Your task to perform on an android device: Show me popular videos on Youtube Image 0: 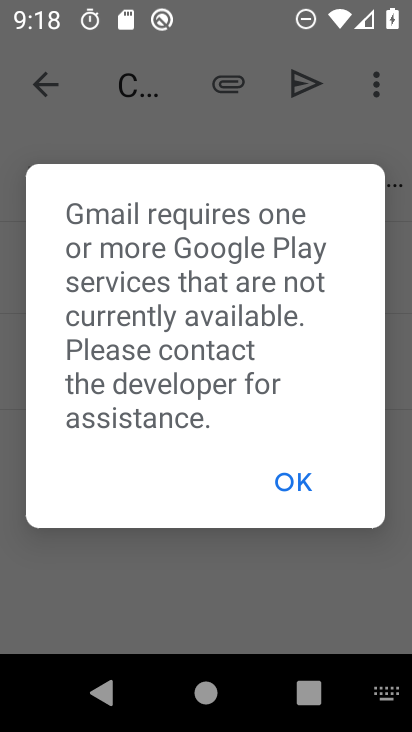
Step 0: press home button
Your task to perform on an android device: Show me popular videos on Youtube Image 1: 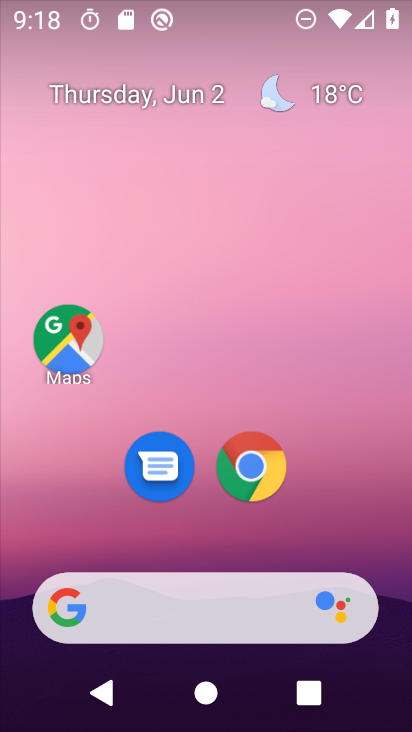
Step 1: drag from (295, 537) to (292, 116)
Your task to perform on an android device: Show me popular videos on Youtube Image 2: 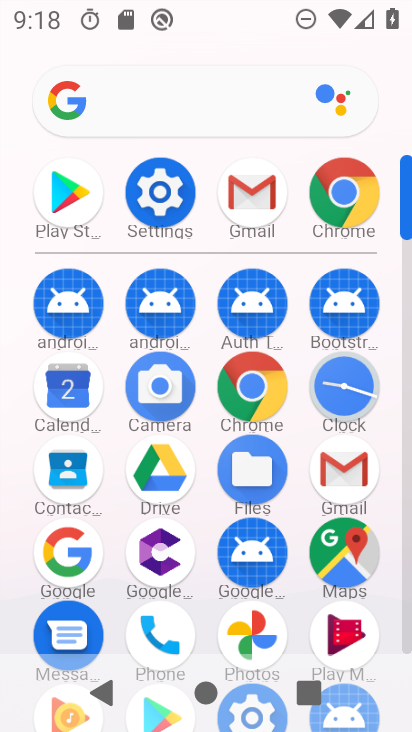
Step 2: drag from (389, 654) to (387, 93)
Your task to perform on an android device: Show me popular videos on Youtube Image 3: 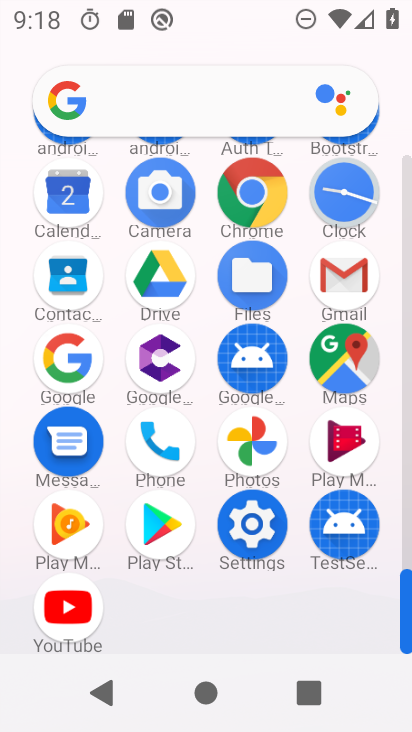
Step 3: click (79, 619)
Your task to perform on an android device: Show me popular videos on Youtube Image 4: 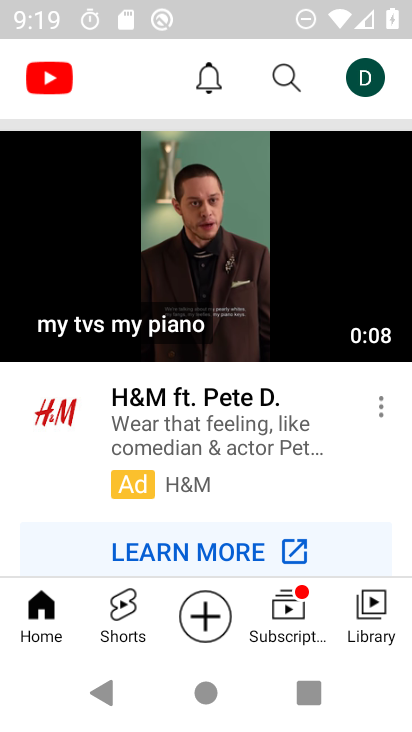
Step 4: click (49, 618)
Your task to perform on an android device: Show me popular videos on Youtube Image 5: 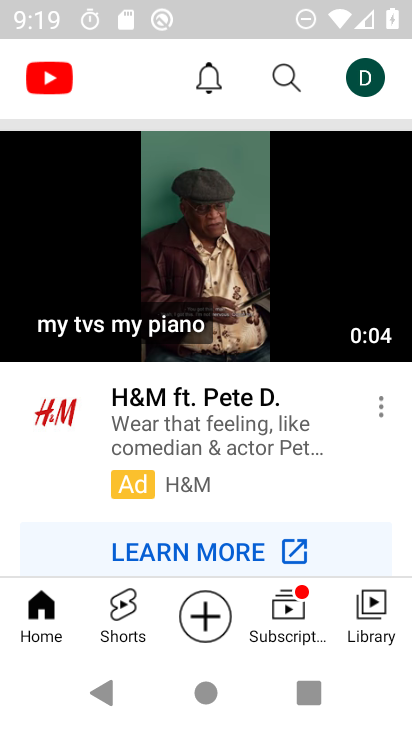
Step 5: drag from (343, 476) to (262, 688)
Your task to perform on an android device: Show me popular videos on Youtube Image 6: 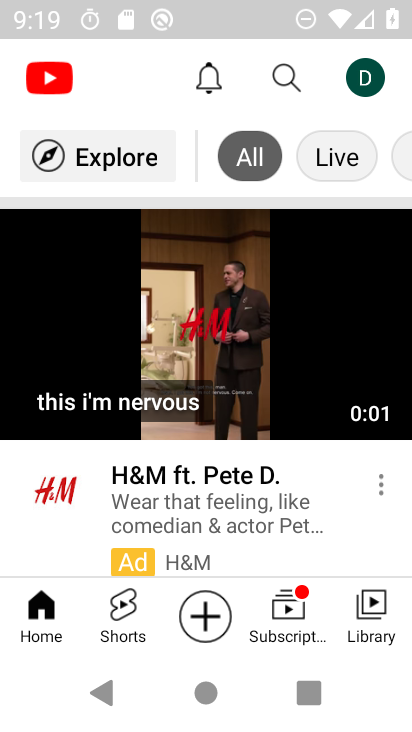
Step 6: click (98, 153)
Your task to perform on an android device: Show me popular videos on Youtube Image 7: 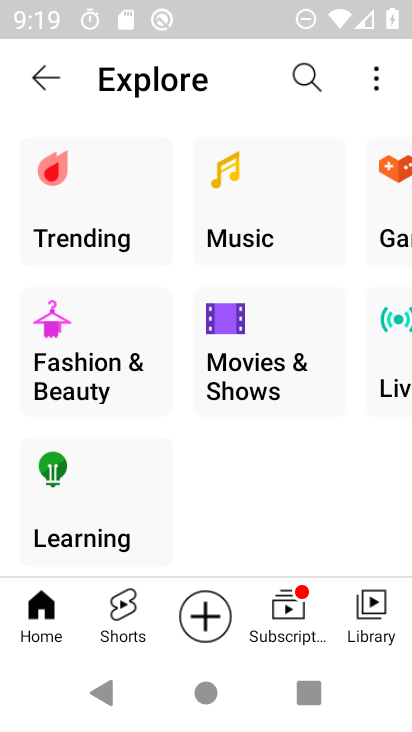
Step 7: click (95, 201)
Your task to perform on an android device: Show me popular videos on Youtube Image 8: 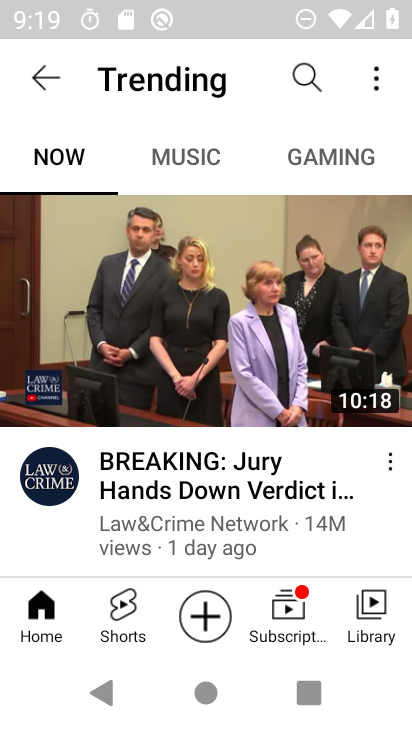
Step 8: task complete